Your task to perform on an android device: change notification settings in the gmail app Image 0: 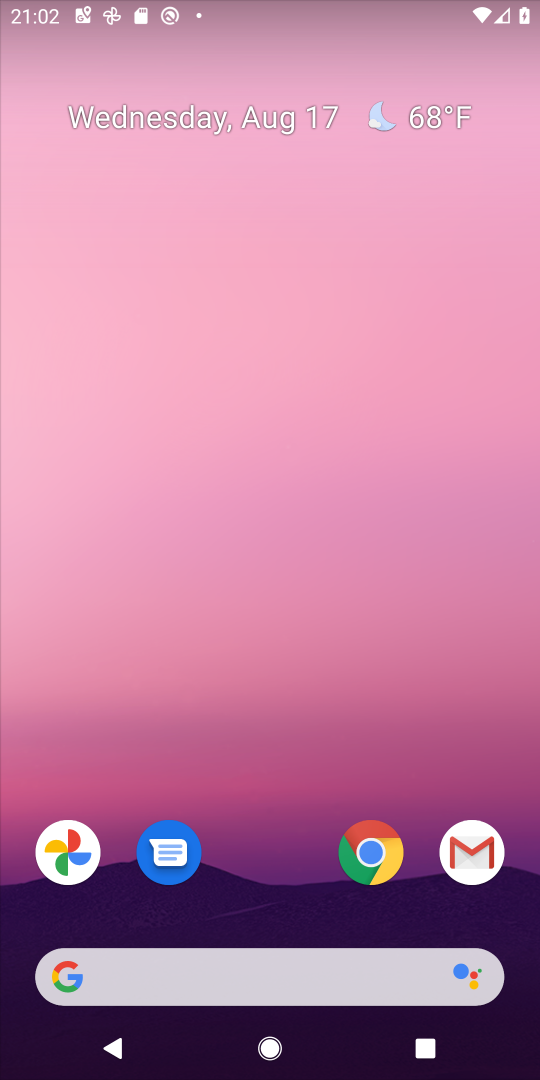
Step 0: press home button
Your task to perform on an android device: change notification settings in the gmail app Image 1: 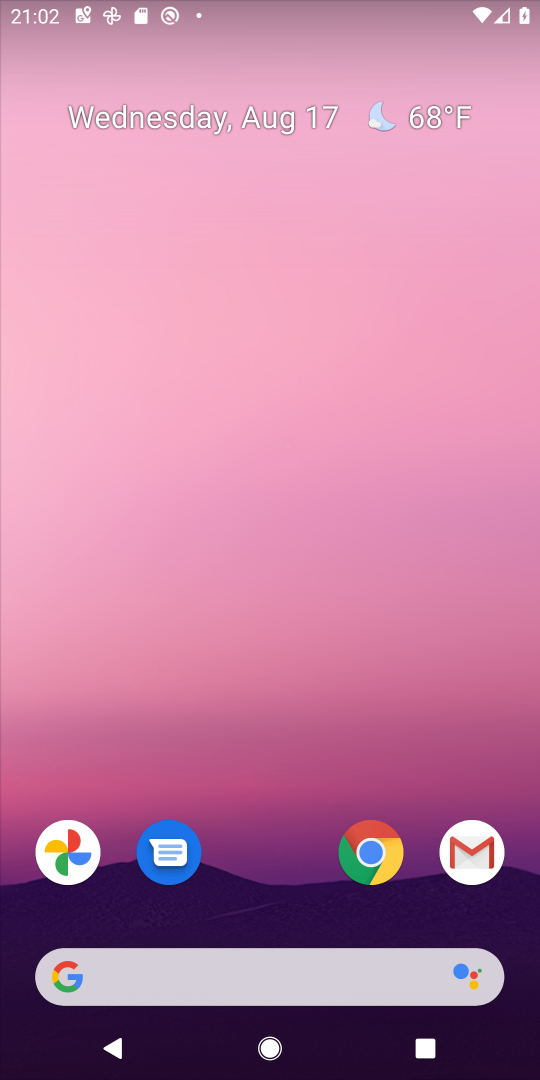
Step 1: click (466, 845)
Your task to perform on an android device: change notification settings in the gmail app Image 2: 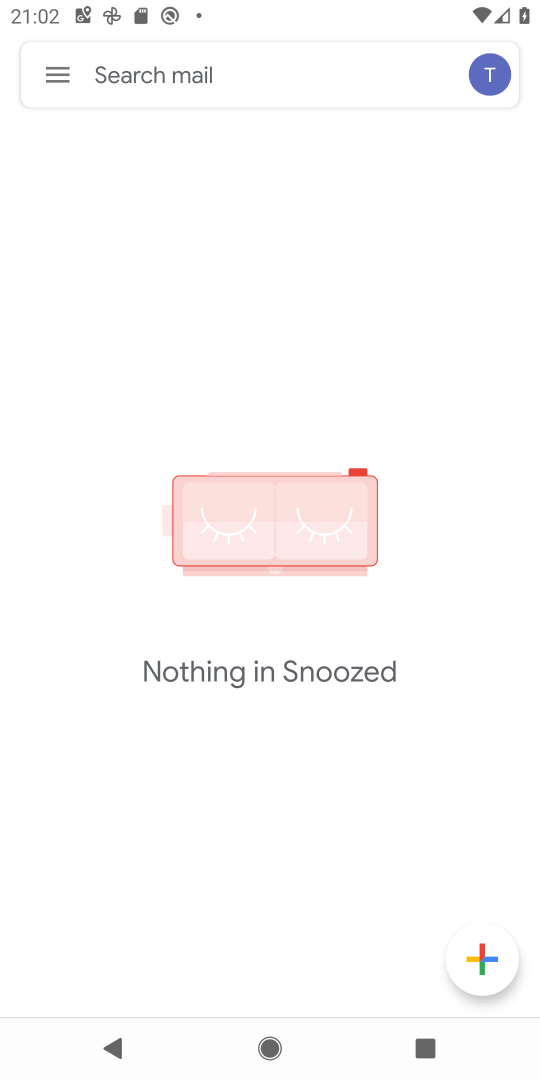
Step 2: click (53, 63)
Your task to perform on an android device: change notification settings in the gmail app Image 3: 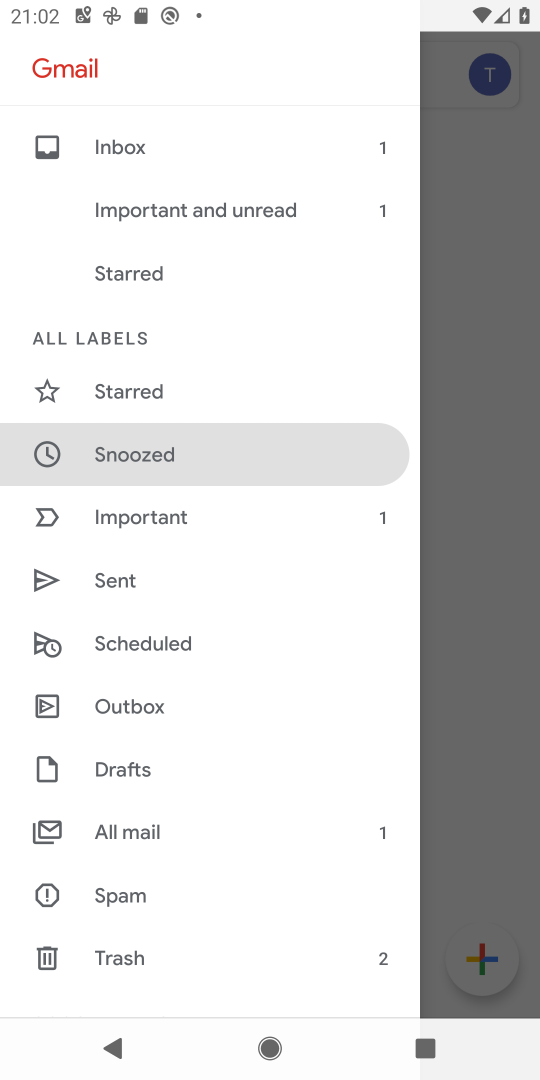
Step 3: drag from (242, 940) to (283, 457)
Your task to perform on an android device: change notification settings in the gmail app Image 4: 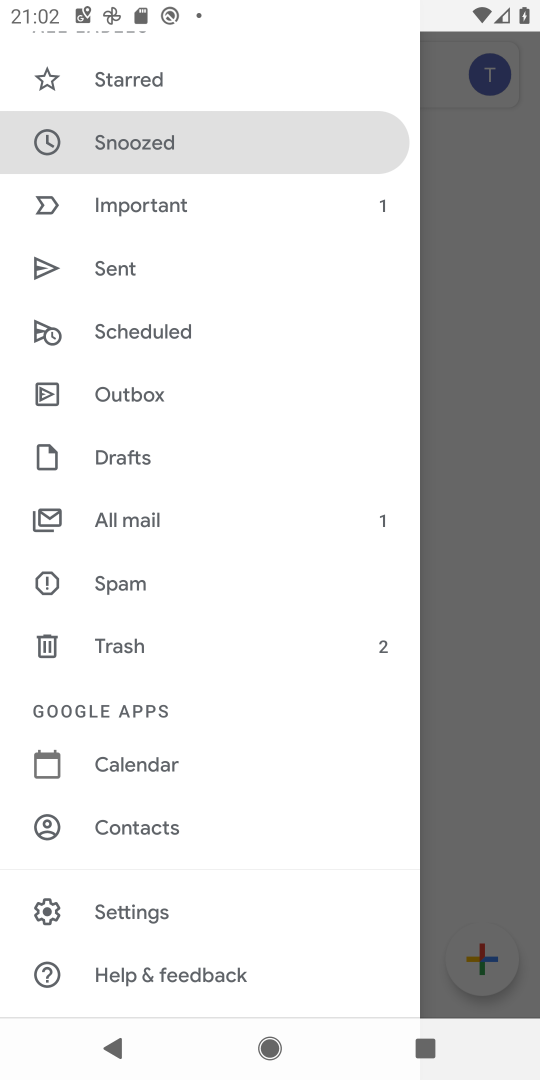
Step 4: click (127, 905)
Your task to perform on an android device: change notification settings in the gmail app Image 5: 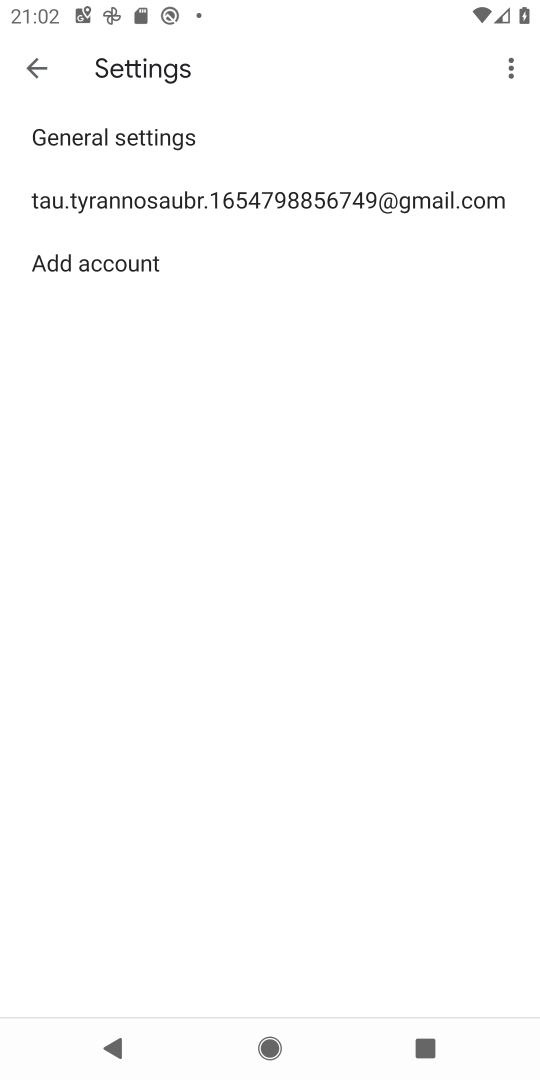
Step 5: click (139, 126)
Your task to perform on an android device: change notification settings in the gmail app Image 6: 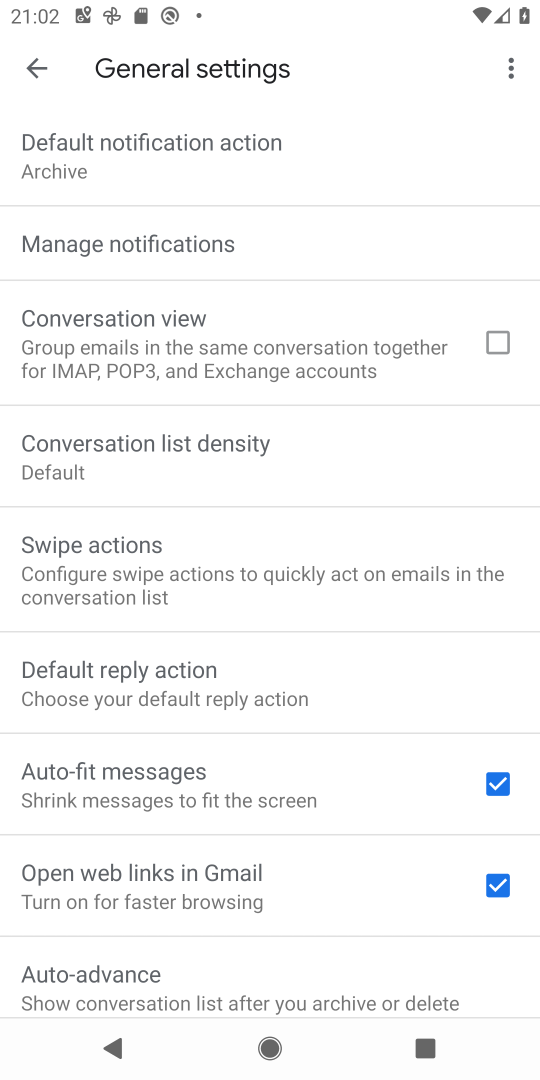
Step 6: click (120, 243)
Your task to perform on an android device: change notification settings in the gmail app Image 7: 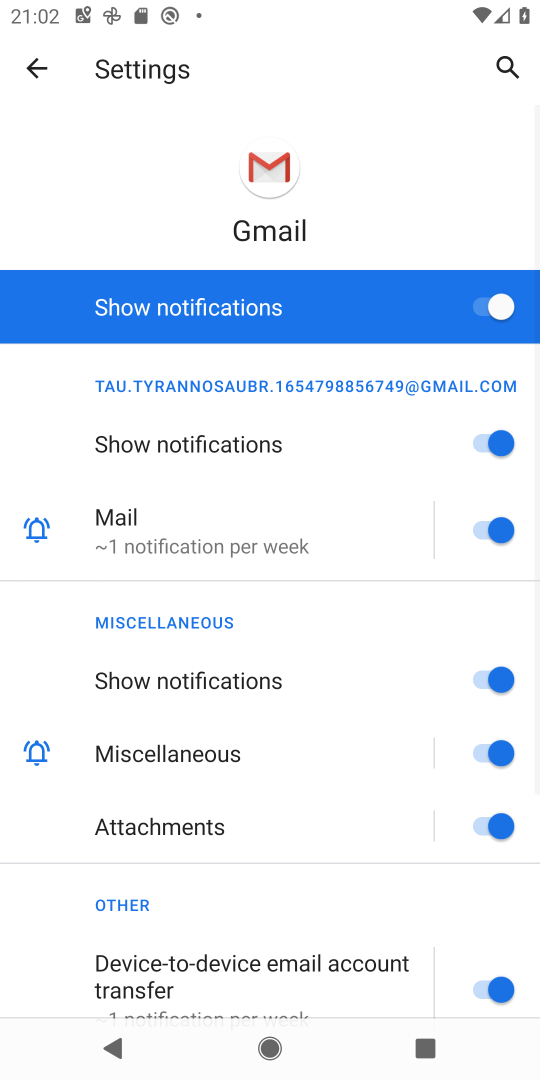
Step 7: click (494, 314)
Your task to perform on an android device: change notification settings in the gmail app Image 8: 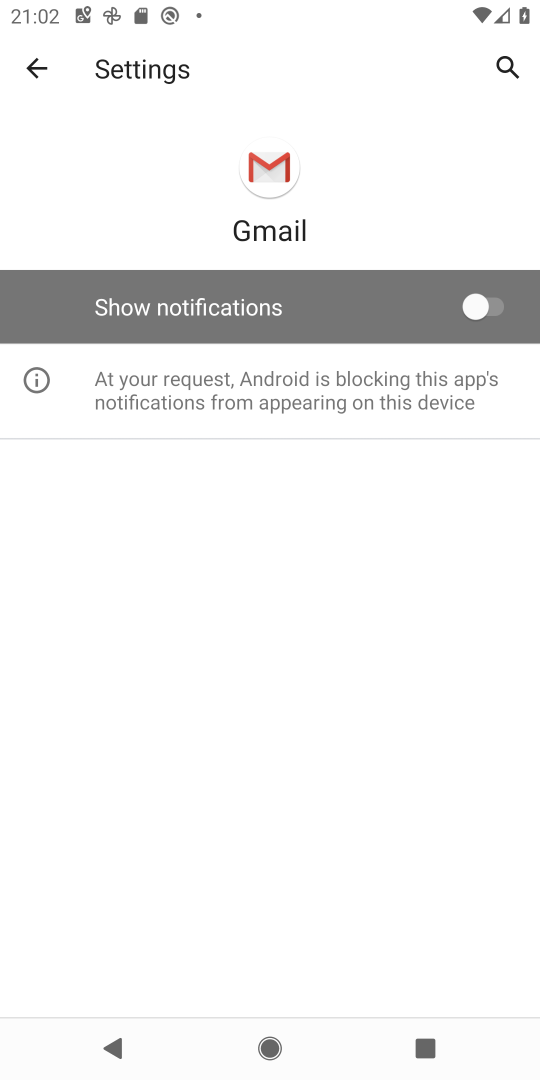
Step 8: task complete